Your task to perform on an android device: Go to ESPN.com Image 0: 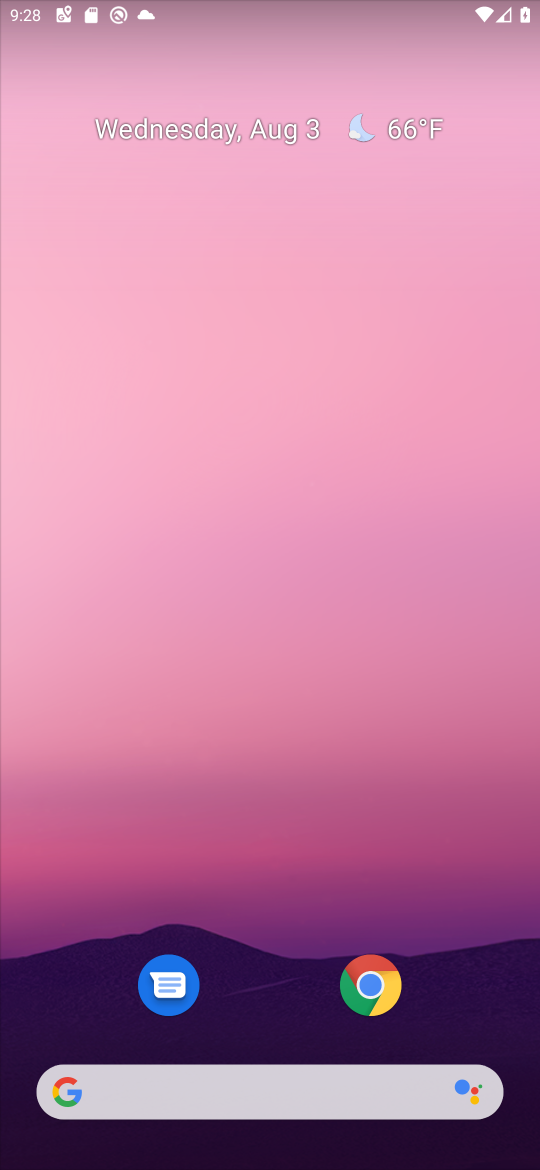
Step 0: click (380, 1003)
Your task to perform on an android device: Go to ESPN.com Image 1: 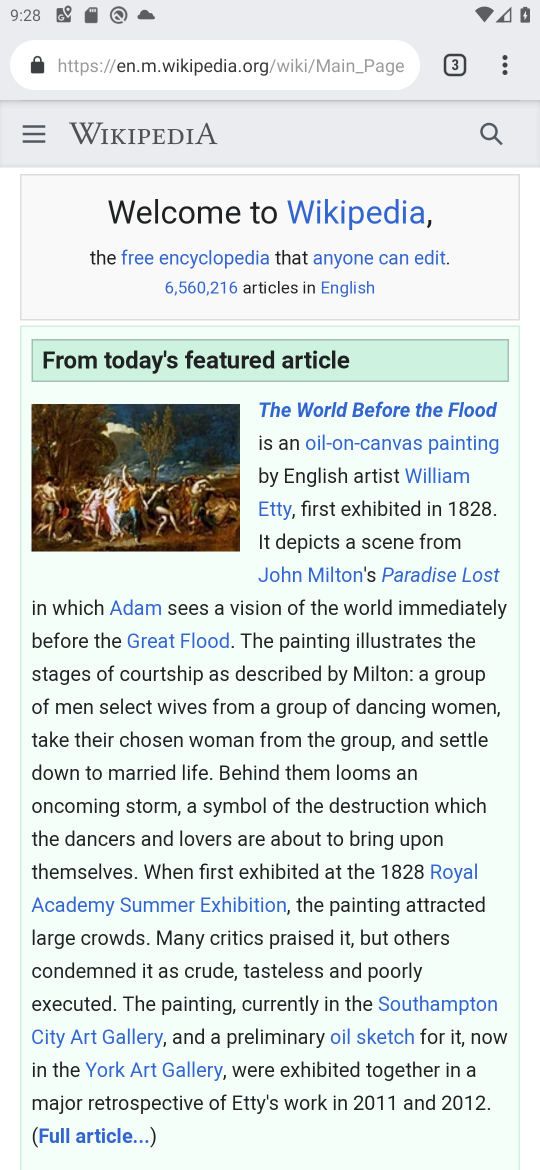
Step 1: click (449, 57)
Your task to perform on an android device: Go to ESPN.com Image 2: 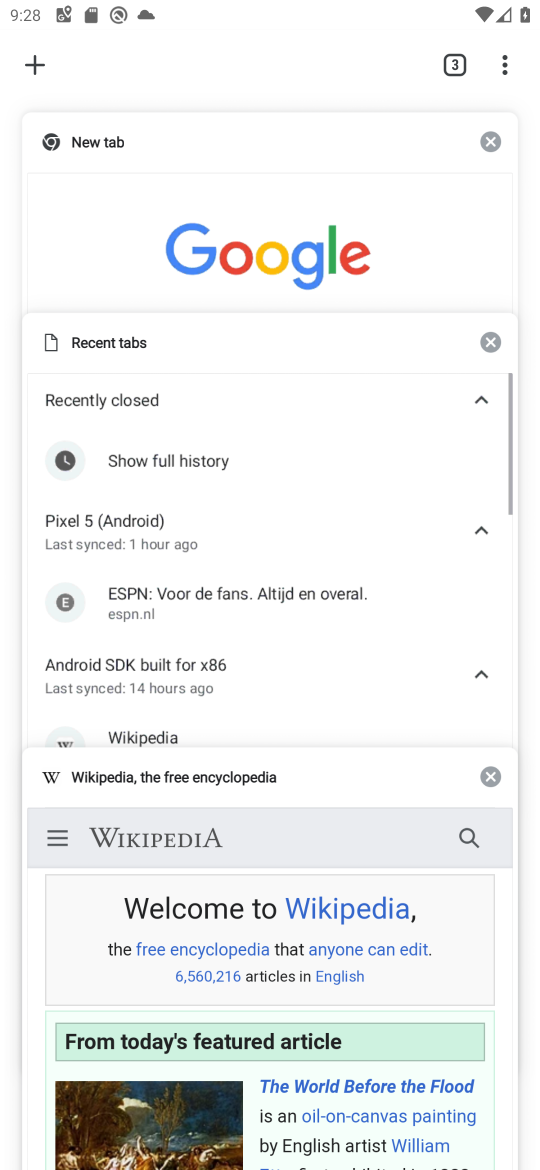
Step 2: click (21, 65)
Your task to perform on an android device: Go to ESPN.com Image 3: 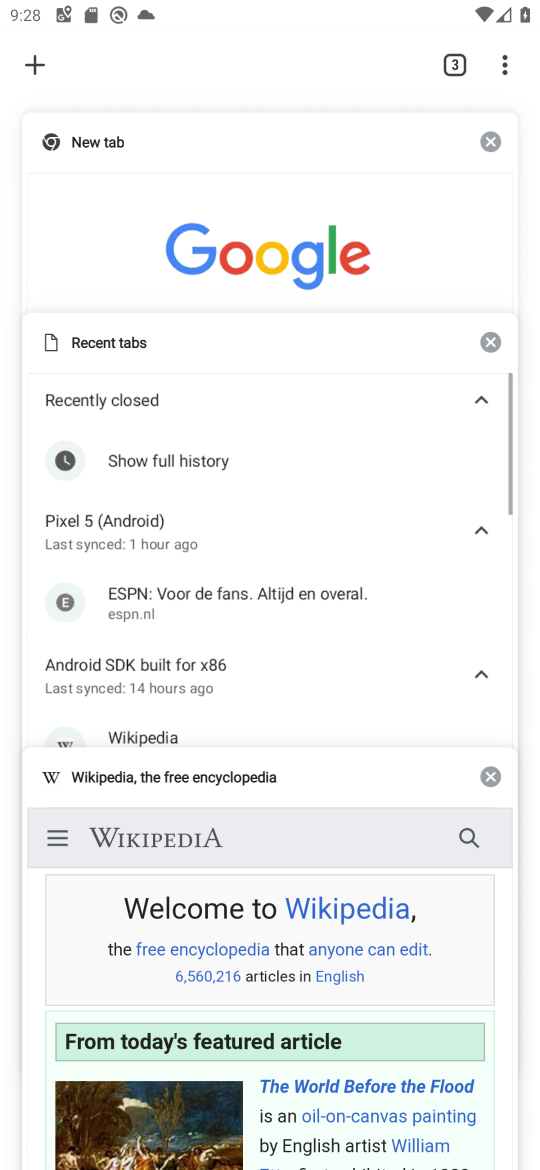
Step 3: click (39, 66)
Your task to perform on an android device: Go to ESPN.com Image 4: 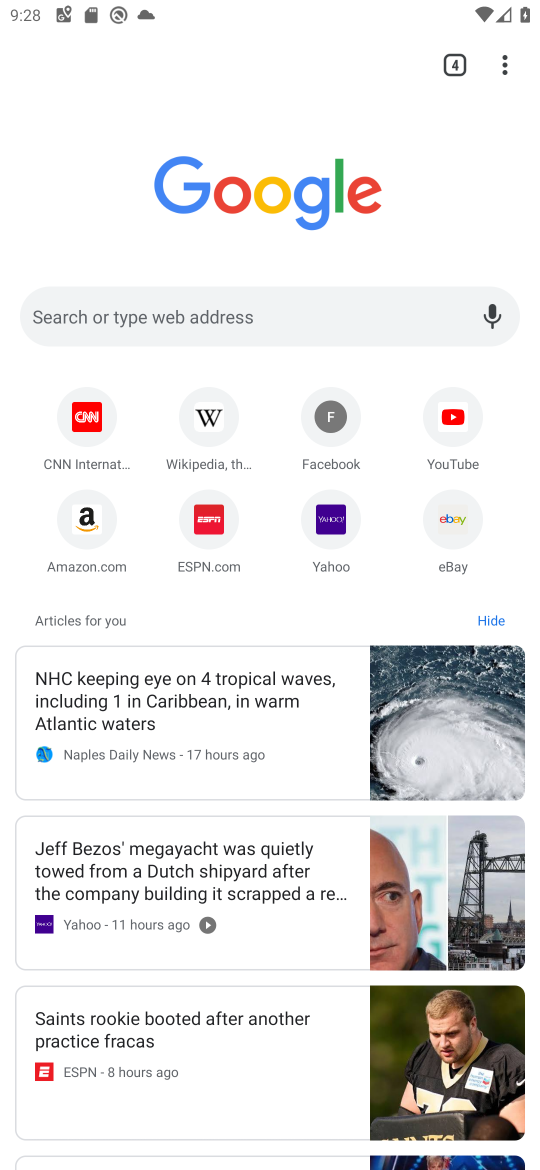
Step 4: click (202, 523)
Your task to perform on an android device: Go to ESPN.com Image 5: 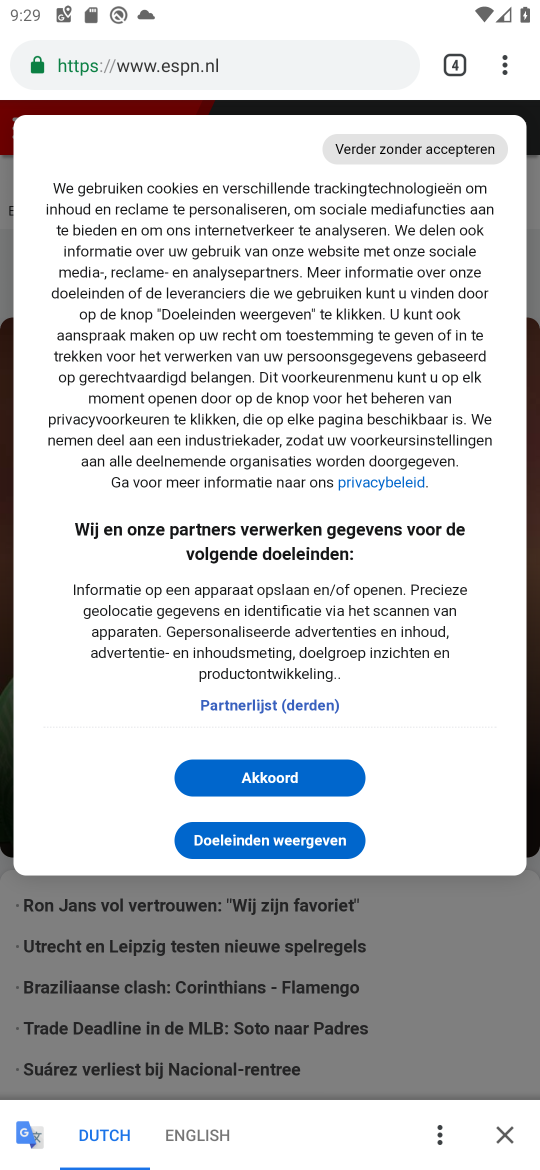
Step 5: task complete